Your task to perform on an android device: What's on my calendar today? Image 0: 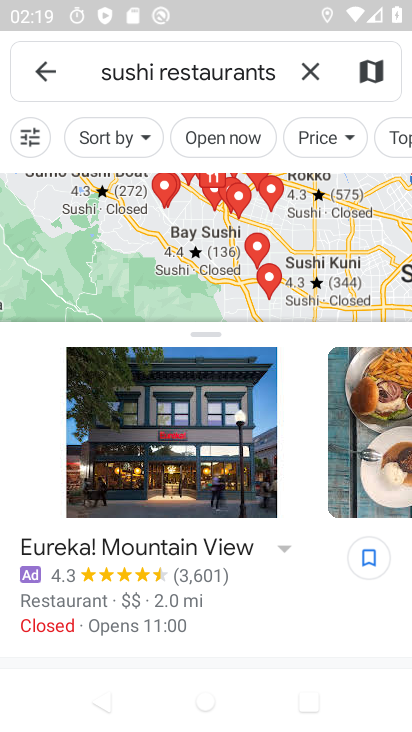
Step 0: press home button
Your task to perform on an android device: What's on my calendar today? Image 1: 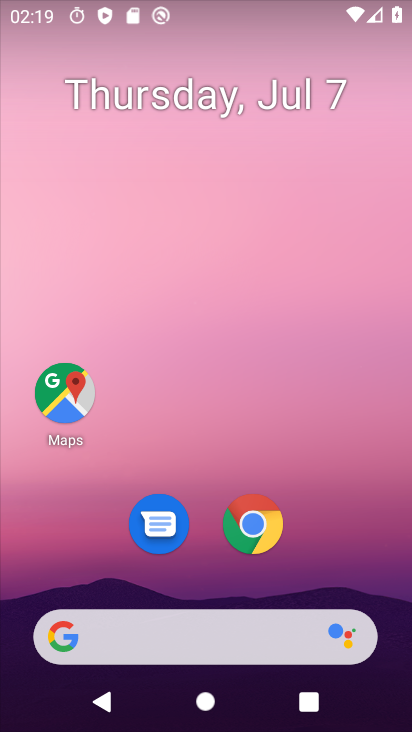
Step 1: drag from (324, 529) to (343, 0)
Your task to perform on an android device: What's on my calendar today? Image 2: 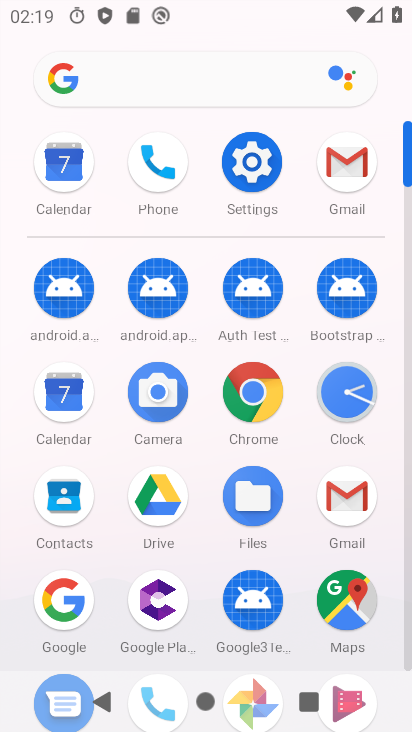
Step 2: click (52, 386)
Your task to perform on an android device: What's on my calendar today? Image 3: 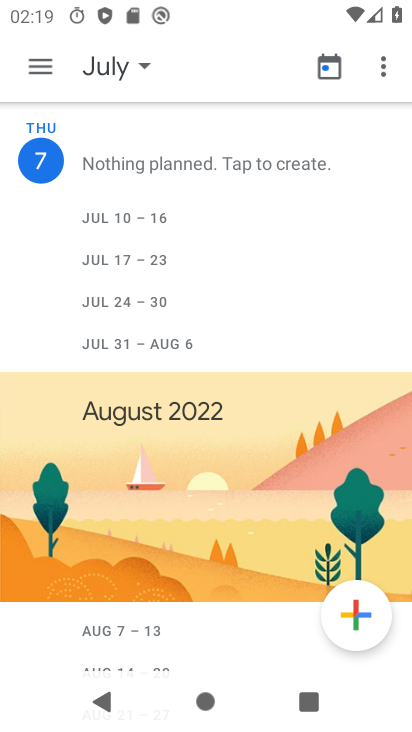
Step 3: task complete